Your task to perform on an android device: turn off sleep mode Image 0: 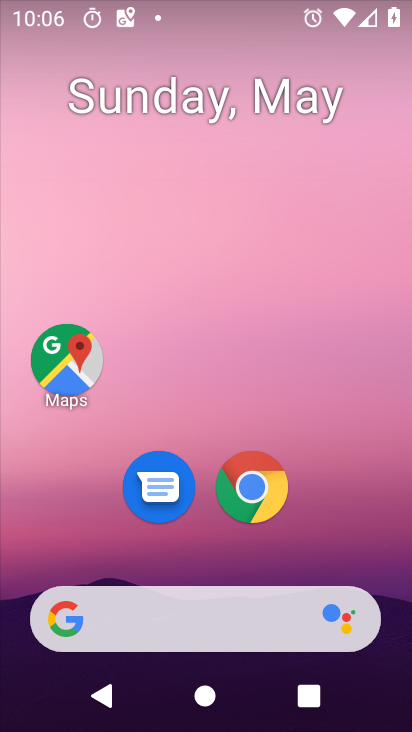
Step 0: drag from (192, 549) to (191, 89)
Your task to perform on an android device: turn off sleep mode Image 1: 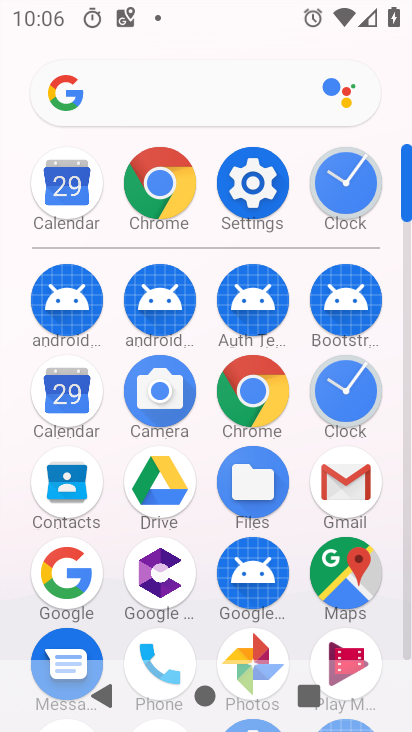
Step 1: click (261, 195)
Your task to perform on an android device: turn off sleep mode Image 2: 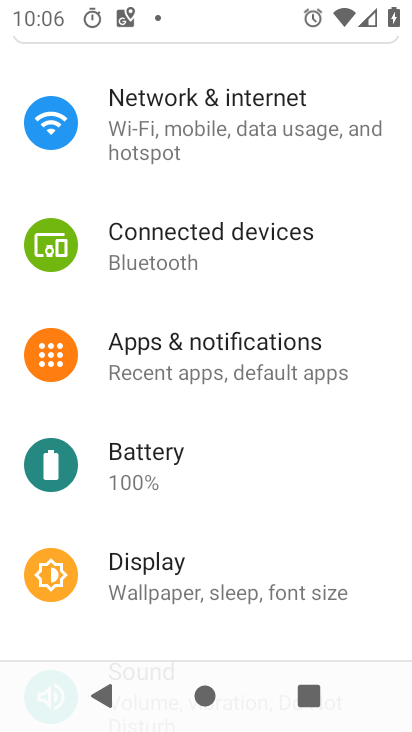
Step 2: click (225, 582)
Your task to perform on an android device: turn off sleep mode Image 3: 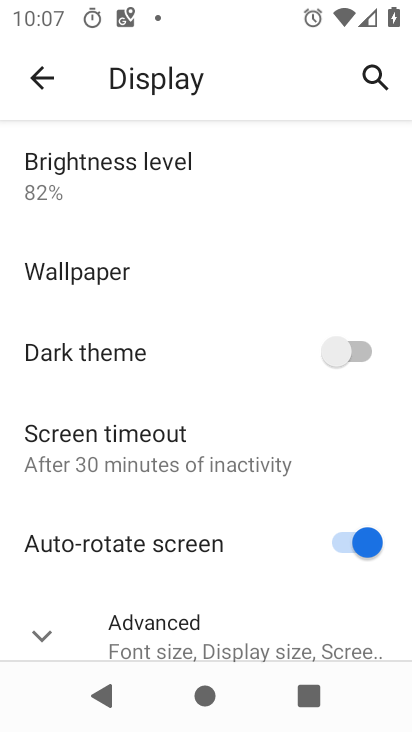
Step 3: click (216, 634)
Your task to perform on an android device: turn off sleep mode Image 4: 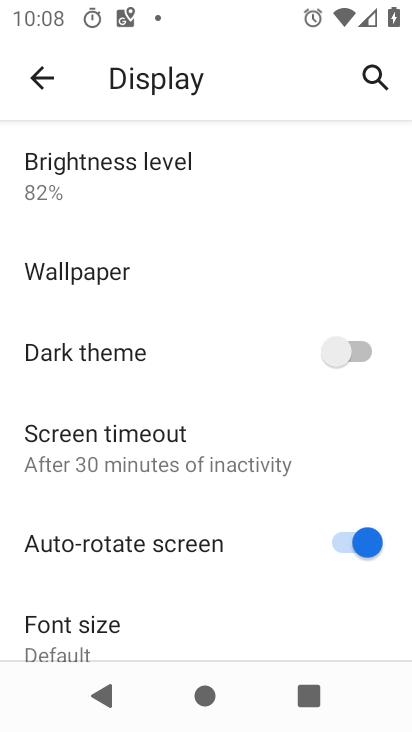
Step 4: task complete